Your task to perform on an android device: turn smart compose on in the gmail app Image 0: 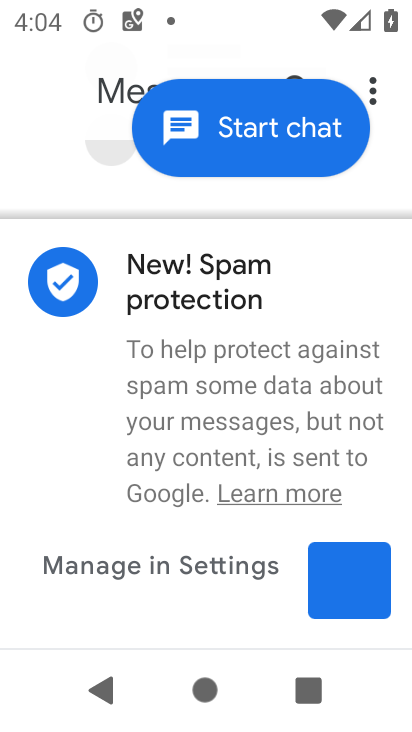
Step 0: press home button
Your task to perform on an android device: turn smart compose on in the gmail app Image 1: 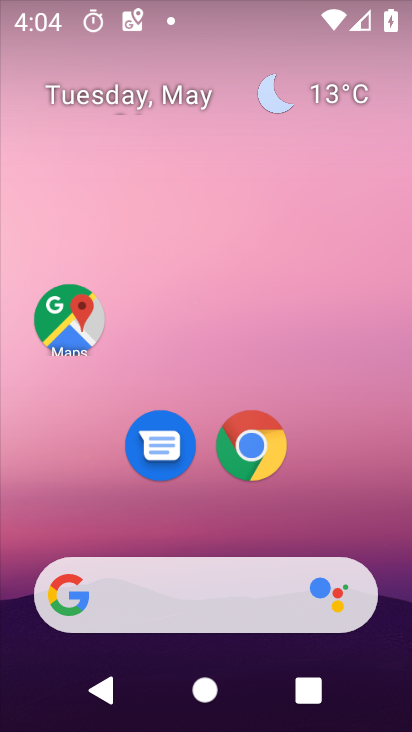
Step 1: drag from (206, 525) to (258, 58)
Your task to perform on an android device: turn smart compose on in the gmail app Image 2: 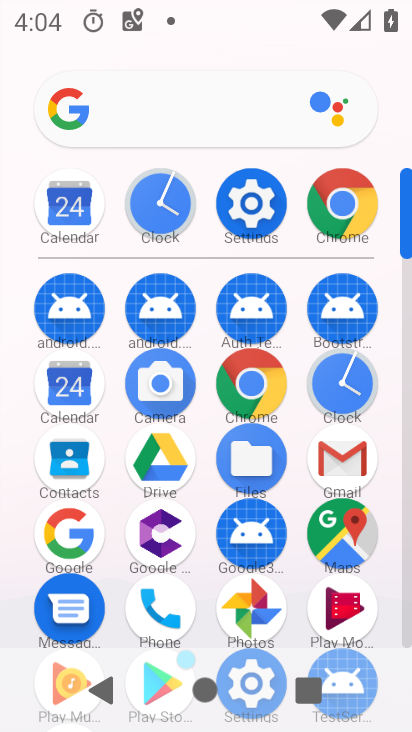
Step 2: click (348, 449)
Your task to perform on an android device: turn smart compose on in the gmail app Image 3: 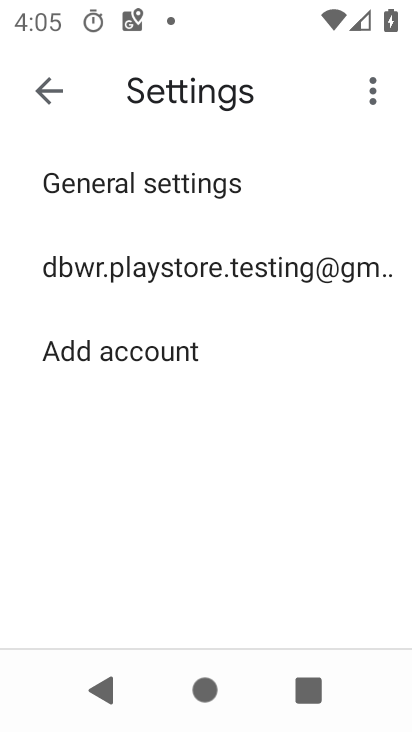
Step 3: click (240, 268)
Your task to perform on an android device: turn smart compose on in the gmail app Image 4: 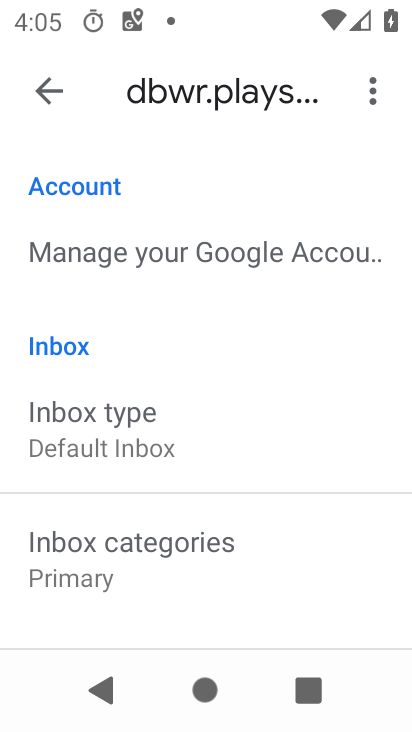
Step 4: task complete